Your task to perform on an android device: Go to CNN.com Image 0: 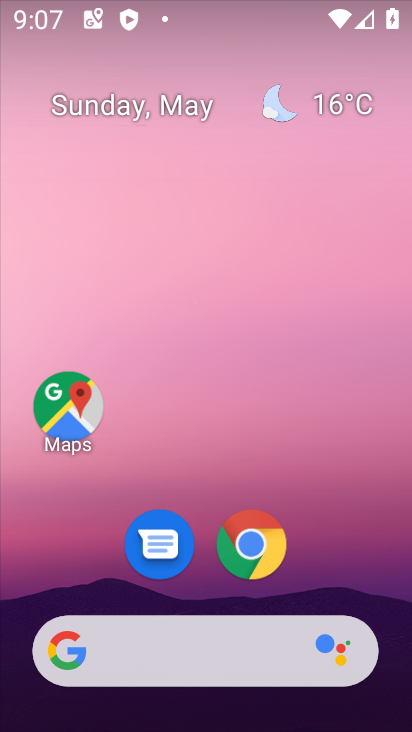
Step 0: click (258, 549)
Your task to perform on an android device: Go to CNN.com Image 1: 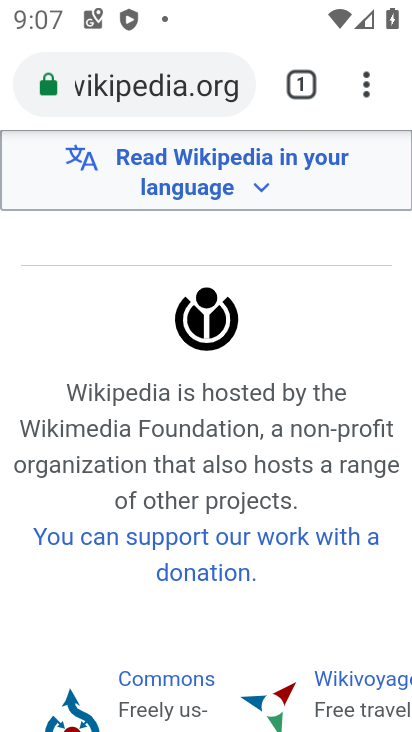
Step 1: click (164, 105)
Your task to perform on an android device: Go to CNN.com Image 2: 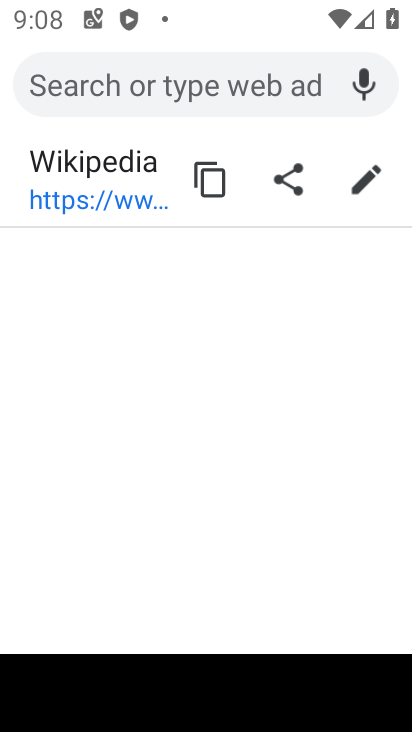
Step 2: type "www.cnn.com"
Your task to perform on an android device: Go to CNN.com Image 3: 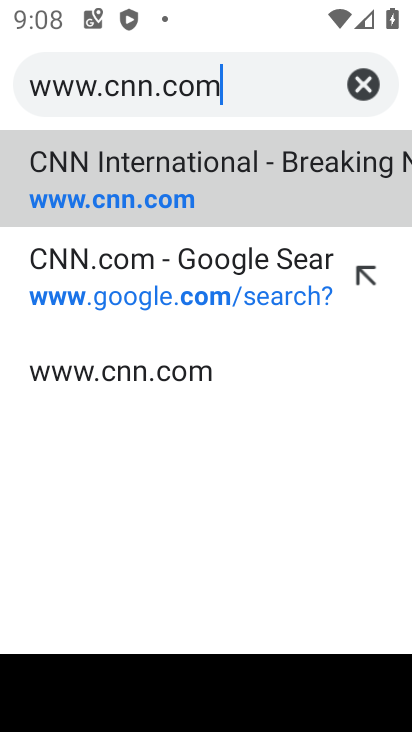
Step 3: click (151, 204)
Your task to perform on an android device: Go to CNN.com Image 4: 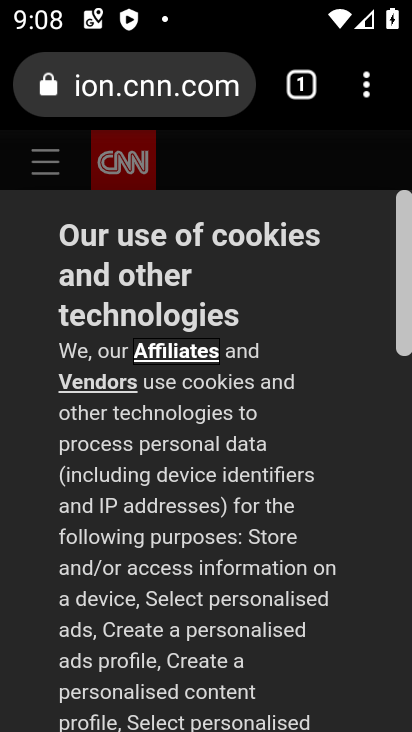
Step 4: task complete